Your task to perform on an android device: turn on javascript in the chrome app Image 0: 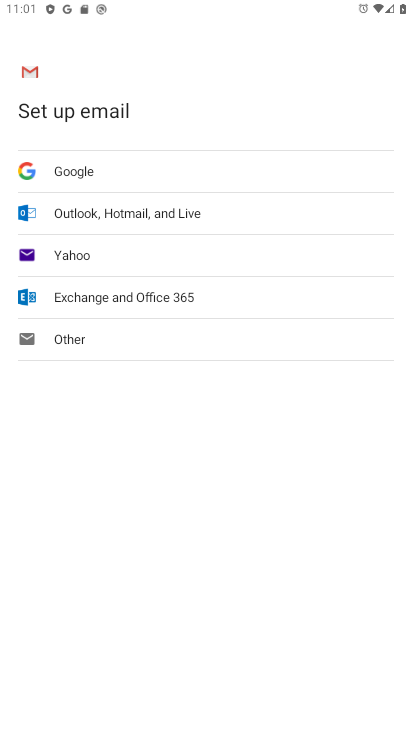
Step 0: press home button
Your task to perform on an android device: turn on javascript in the chrome app Image 1: 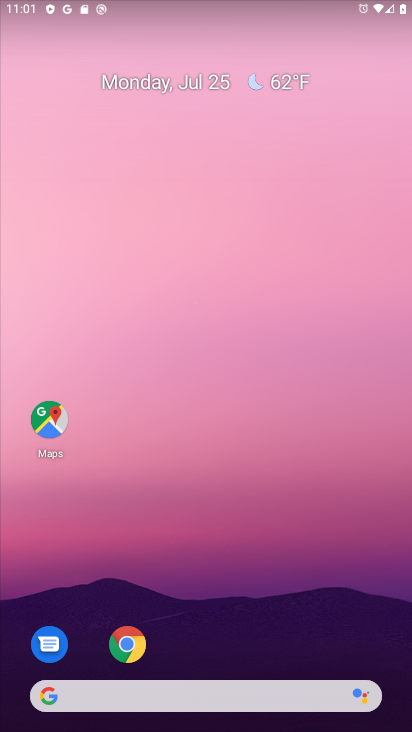
Step 1: click (127, 644)
Your task to perform on an android device: turn on javascript in the chrome app Image 2: 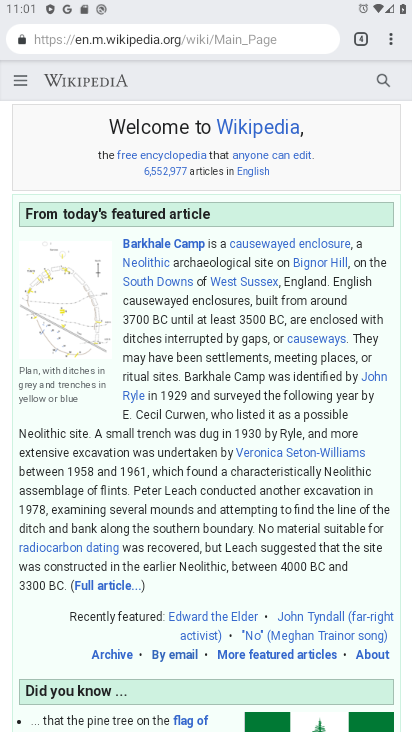
Step 2: click (401, 32)
Your task to perform on an android device: turn on javascript in the chrome app Image 3: 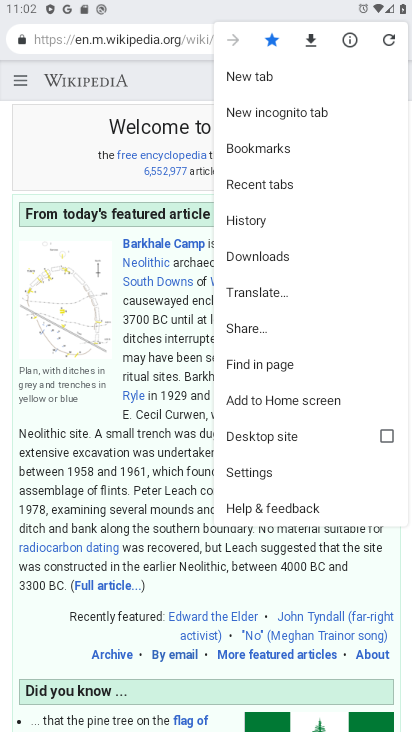
Step 3: click (247, 470)
Your task to perform on an android device: turn on javascript in the chrome app Image 4: 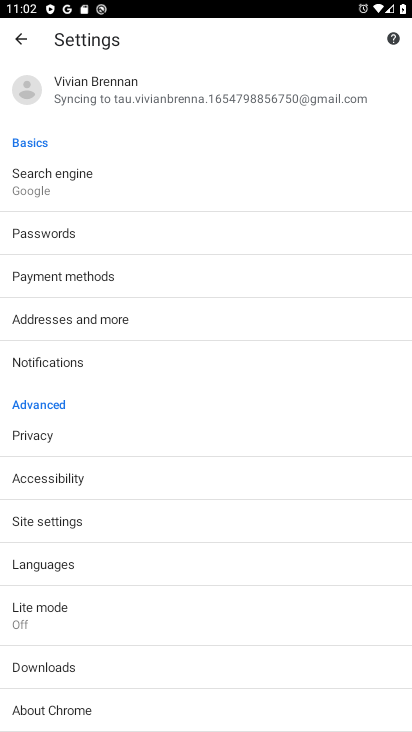
Step 4: click (122, 521)
Your task to perform on an android device: turn on javascript in the chrome app Image 5: 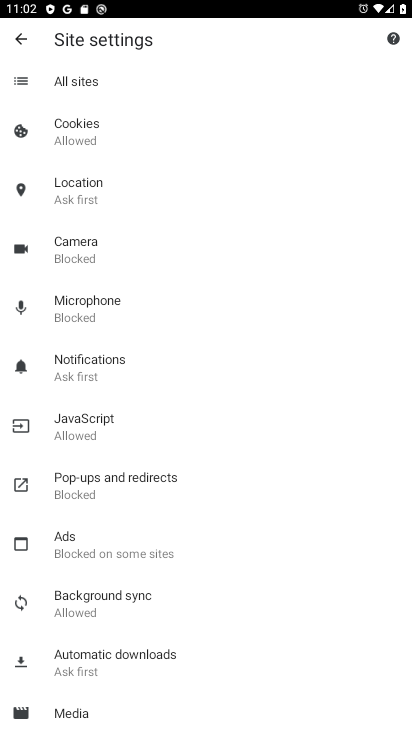
Step 5: click (147, 435)
Your task to perform on an android device: turn on javascript in the chrome app Image 6: 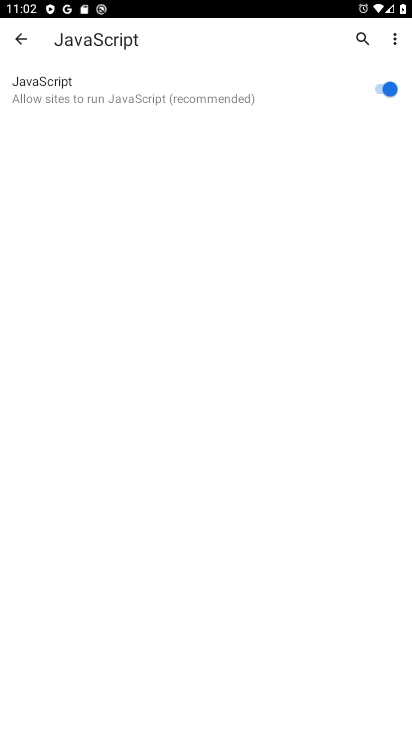
Step 6: task complete